Your task to perform on an android device: toggle priority inbox in the gmail app Image 0: 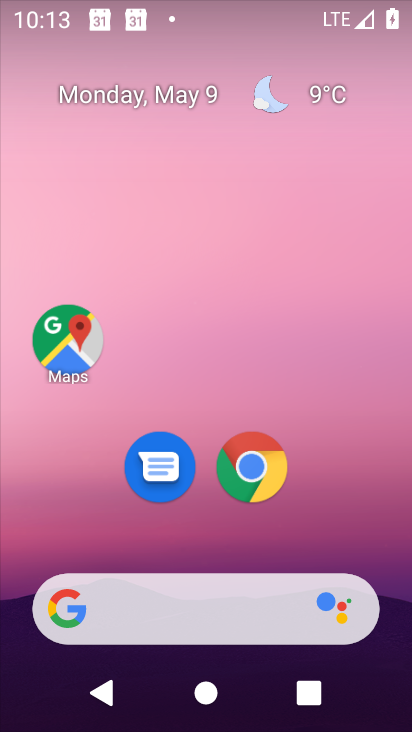
Step 0: drag from (366, 568) to (371, 6)
Your task to perform on an android device: toggle priority inbox in the gmail app Image 1: 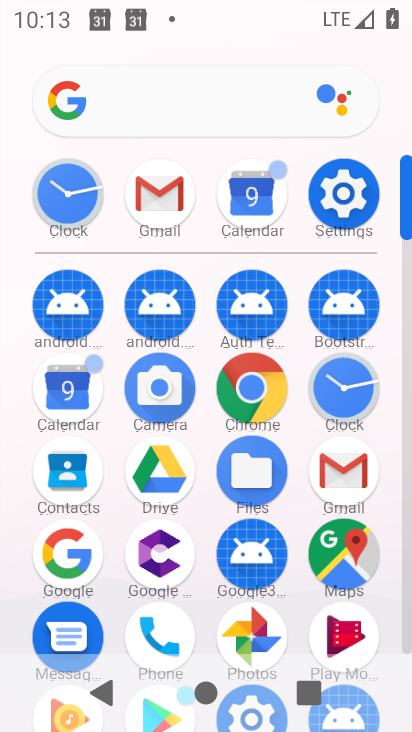
Step 1: click (153, 207)
Your task to perform on an android device: toggle priority inbox in the gmail app Image 2: 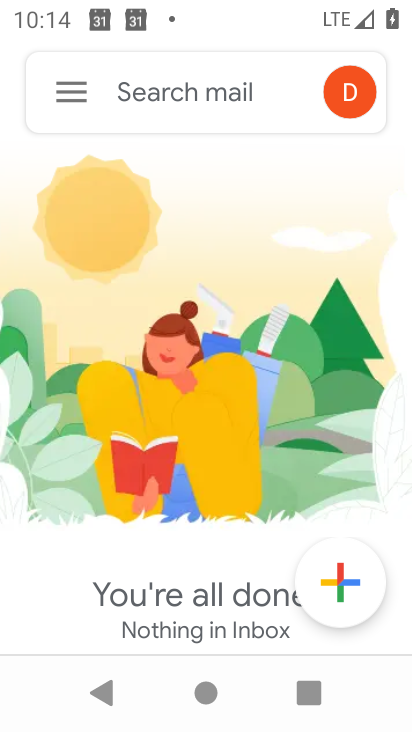
Step 2: click (61, 102)
Your task to perform on an android device: toggle priority inbox in the gmail app Image 3: 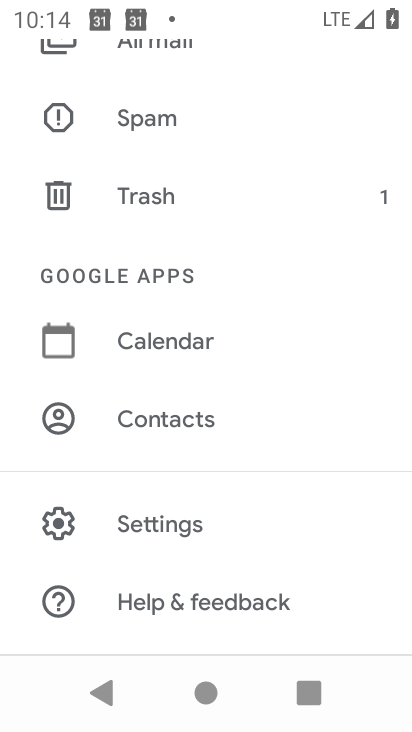
Step 3: click (183, 521)
Your task to perform on an android device: toggle priority inbox in the gmail app Image 4: 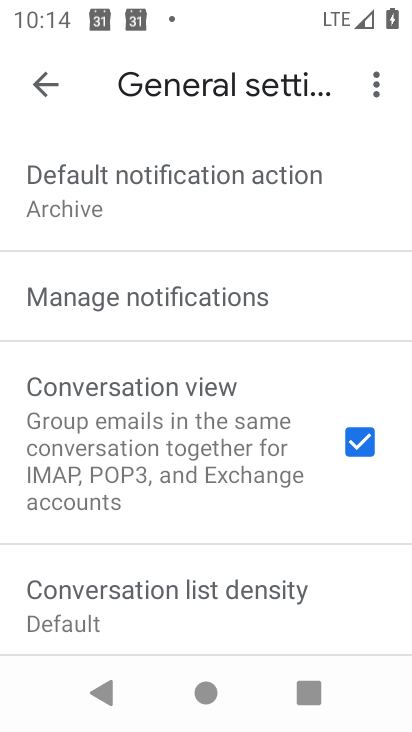
Step 4: click (39, 87)
Your task to perform on an android device: toggle priority inbox in the gmail app Image 5: 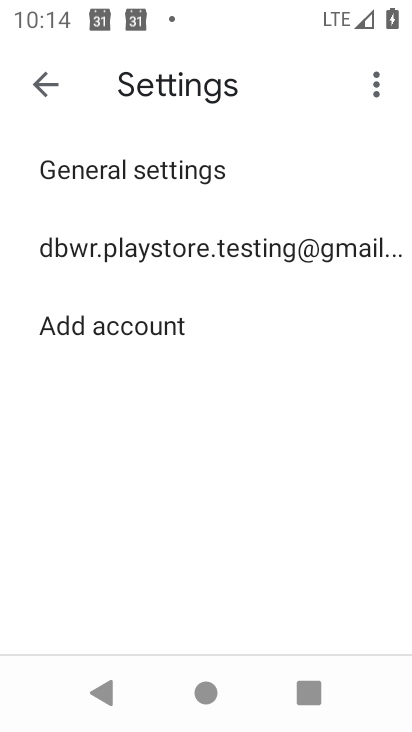
Step 5: click (91, 255)
Your task to perform on an android device: toggle priority inbox in the gmail app Image 6: 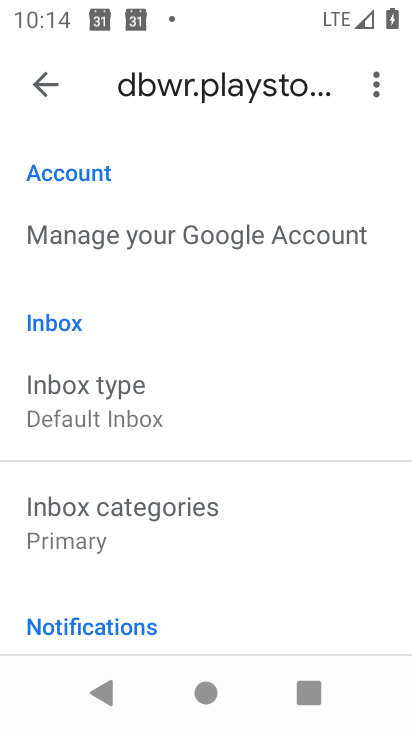
Step 6: click (103, 401)
Your task to perform on an android device: toggle priority inbox in the gmail app Image 7: 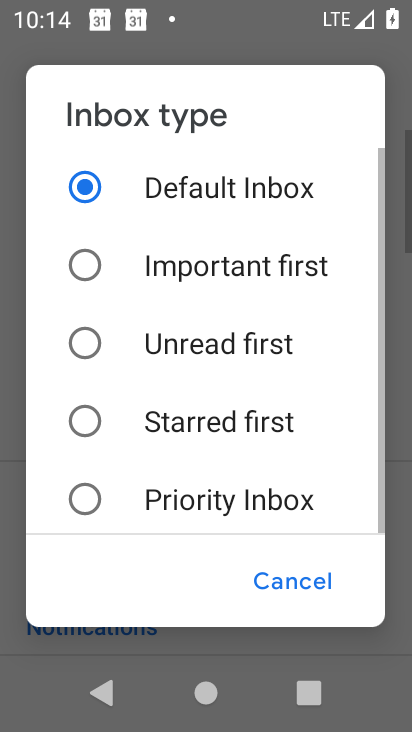
Step 7: click (79, 497)
Your task to perform on an android device: toggle priority inbox in the gmail app Image 8: 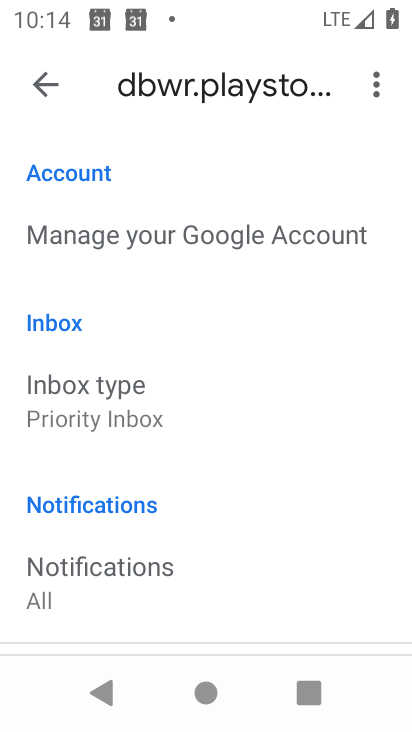
Step 8: task complete